Your task to perform on an android device: turn on wifi Image 0: 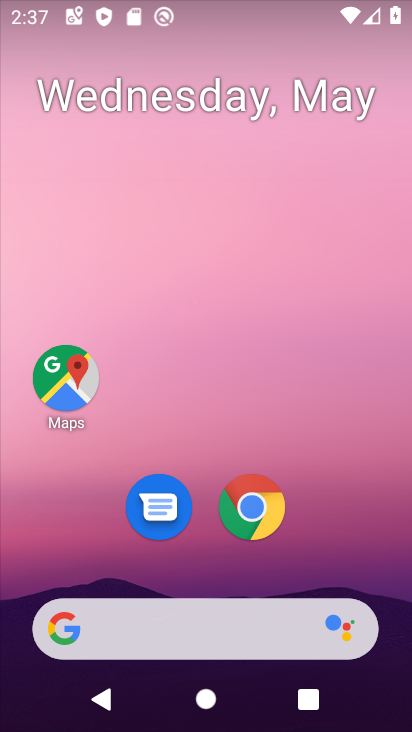
Step 0: drag from (196, 568) to (165, 1)
Your task to perform on an android device: turn on wifi Image 1: 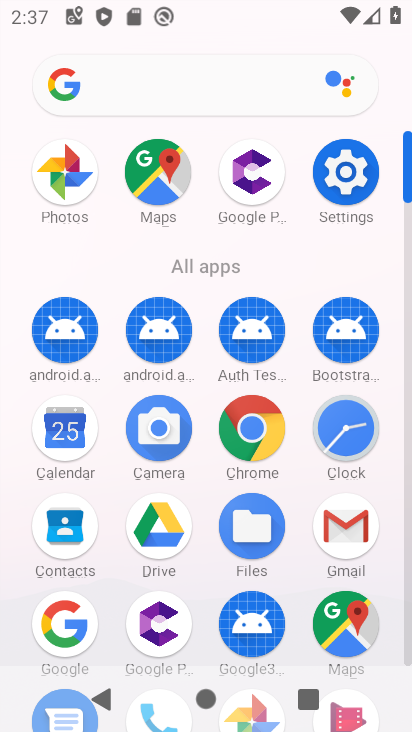
Step 1: click (347, 193)
Your task to perform on an android device: turn on wifi Image 2: 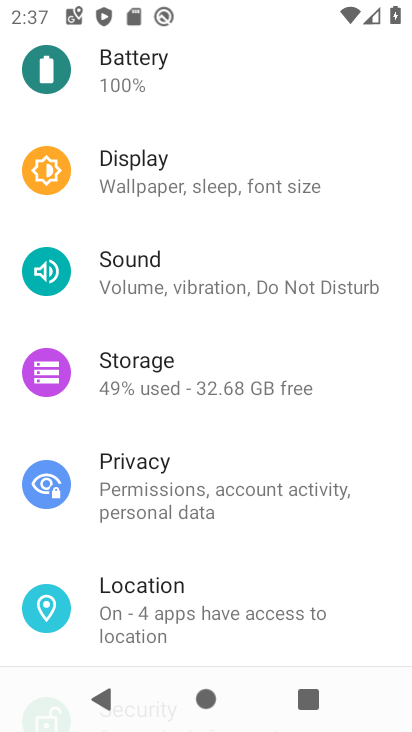
Step 2: drag from (171, 178) to (147, 481)
Your task to perform on an android device: turn on wifi Image 3: 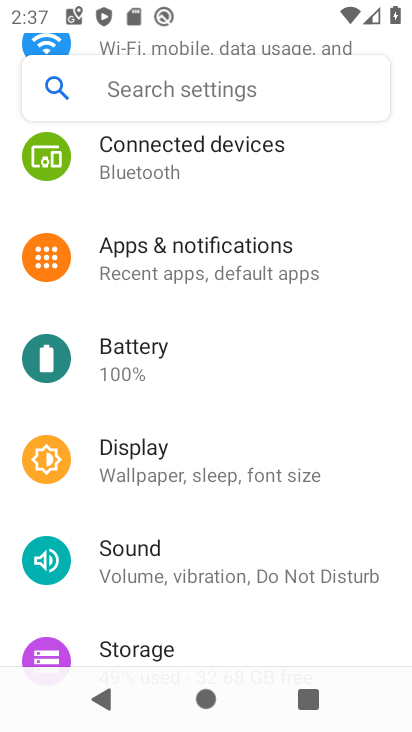
Step 3: drag from (173, 162) to (176, 466)
Your task to perform on an android device: turn on wifi Image 4: 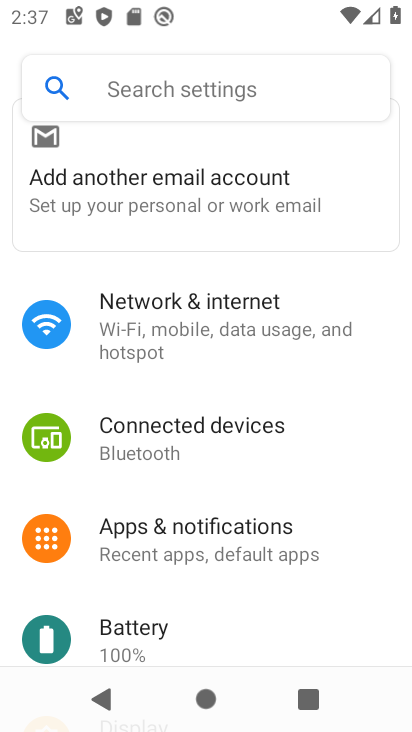
Step 4: click (219, 323)
Your task to perform on an android device: turn on wifi Image 5: 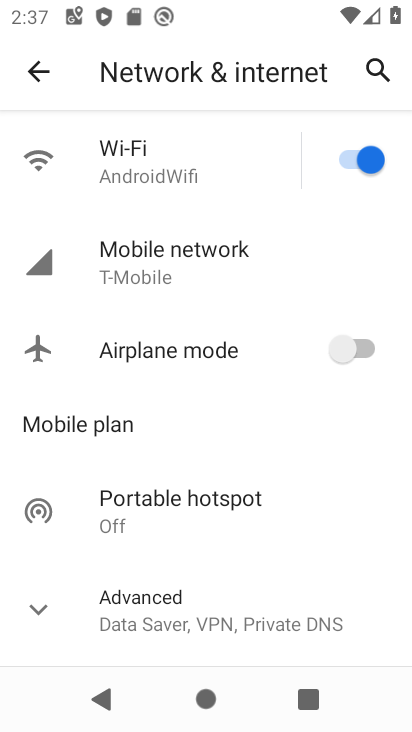
Step 5: task complete